Your task to perform on an android device: change alarm snooze length Image 0: 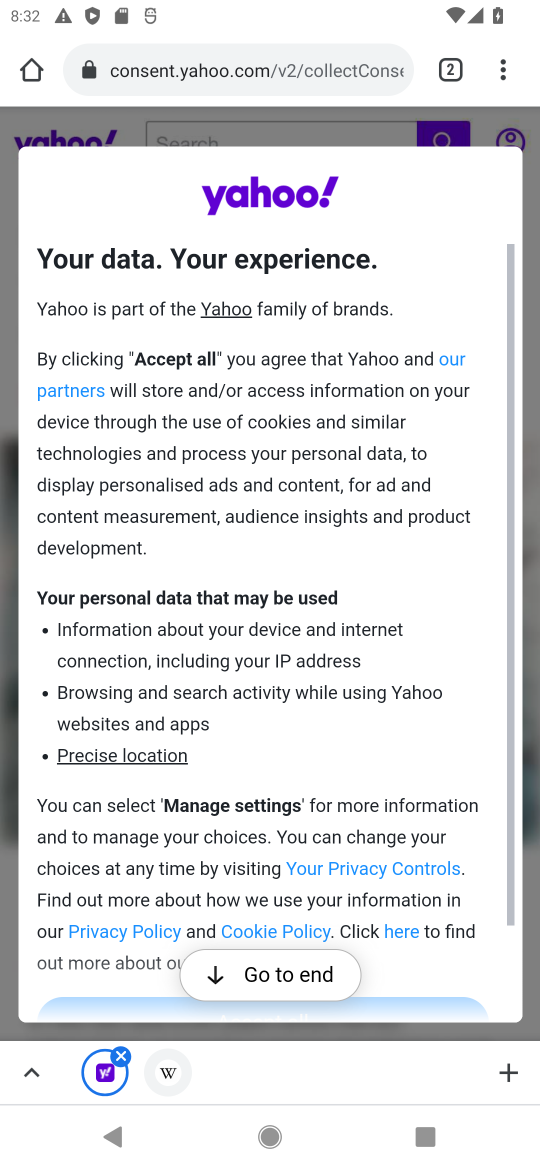
Step 0: press home button
Your task to perform on an android device: change alarm snooze length Image 1: 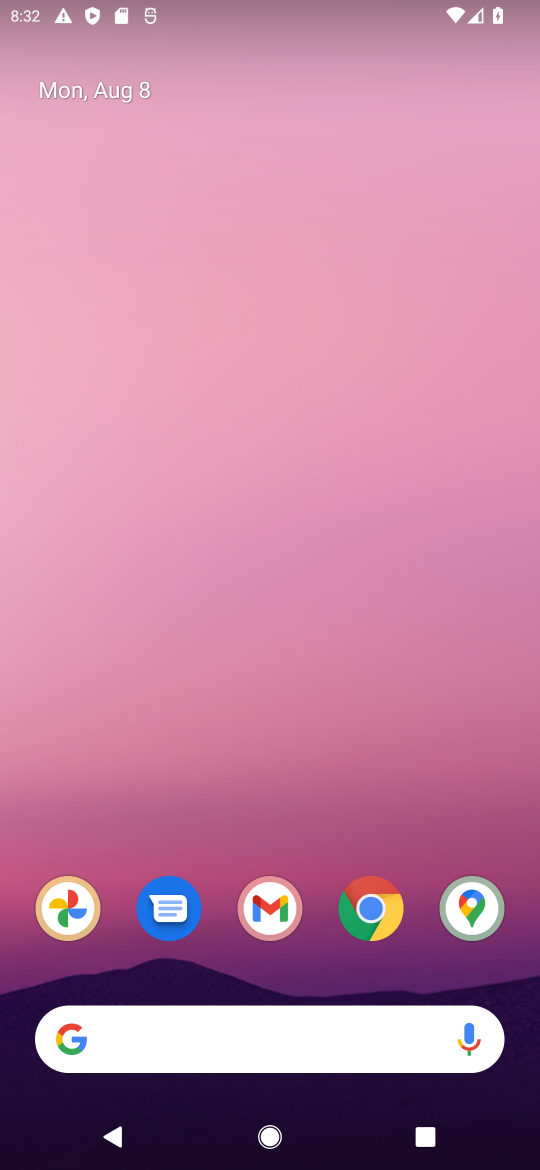
Step 1: drag from (321, 949) to (340, 309)
Your task to perform on an android device: change alarm snooze length Image 2: 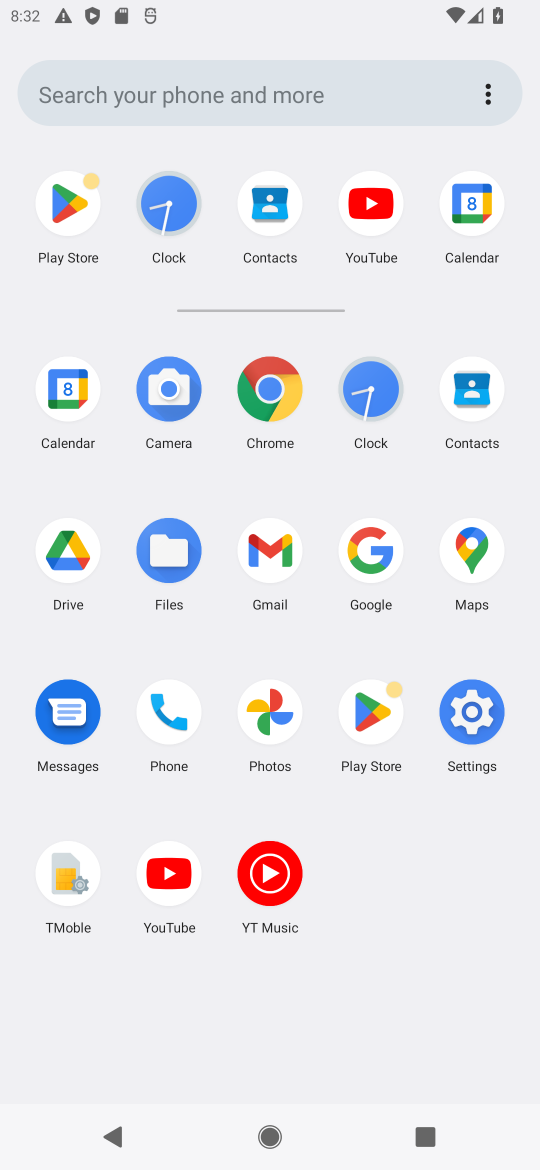
Step 2: click (376, 419)
Your task to perform on an android device: change alarm snooze length Image 3: 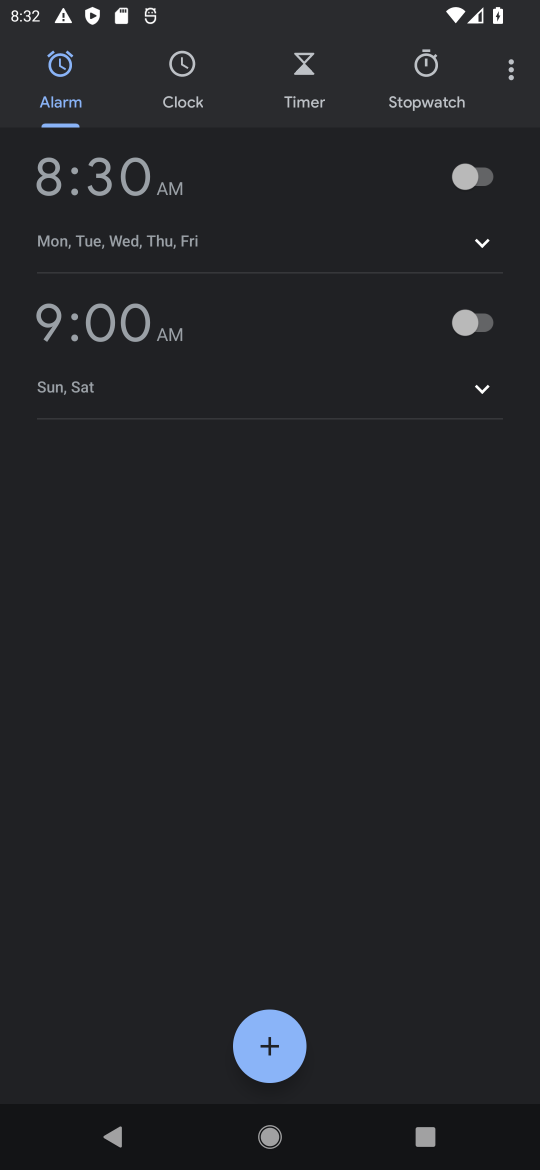
Step 3: click (515, 62)
Your task to perform on an android device: change alarm snooze length Image 4: 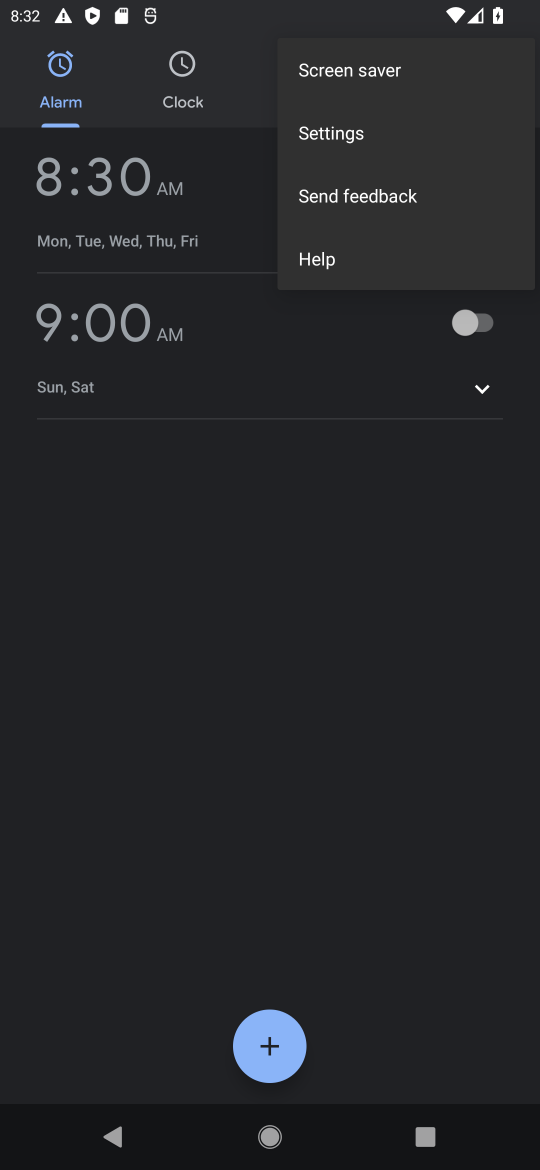
Step 4: click (331, 143)
Your task to perform on an android device: change alarm snooze length Image 5: 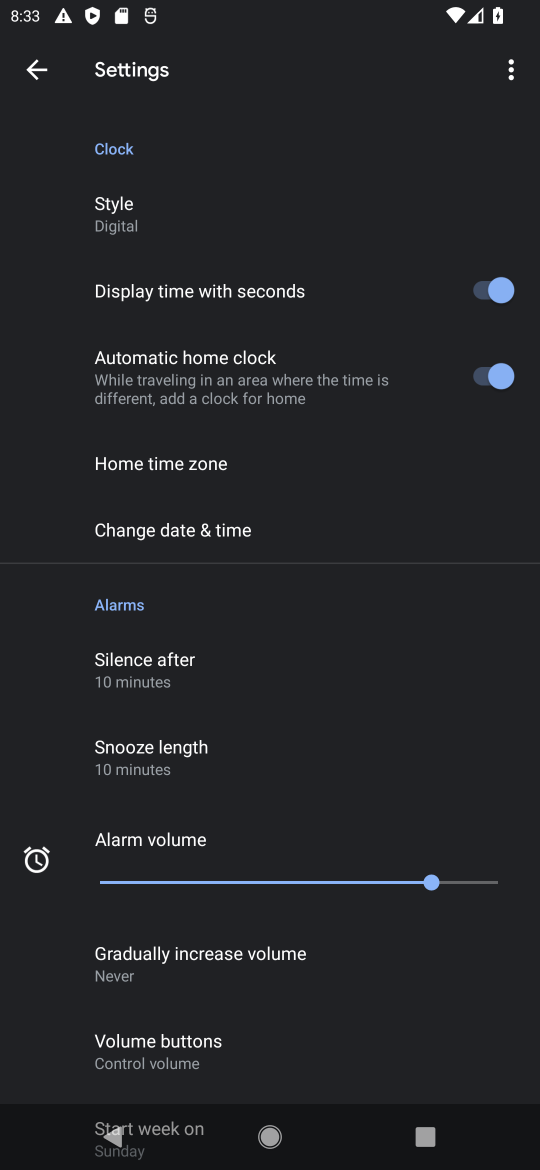
Step 5: click (294, 769)
Your task to perform on an android device: change alarm snooze length Image 6: 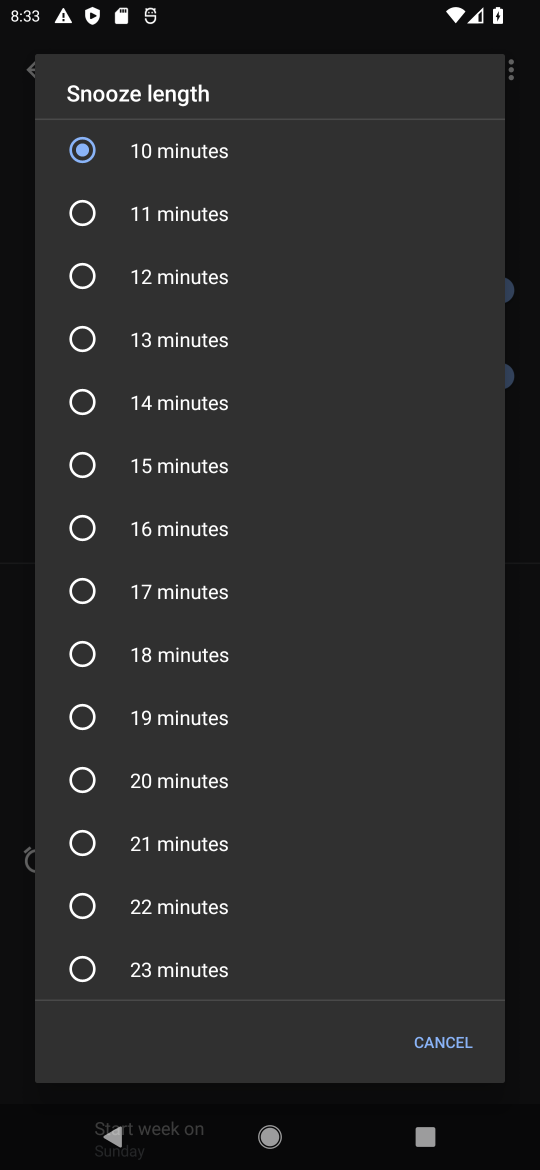
Step 6: click (204, 976)
Your task to perform on an android device: change alarm snooze length Image 7: 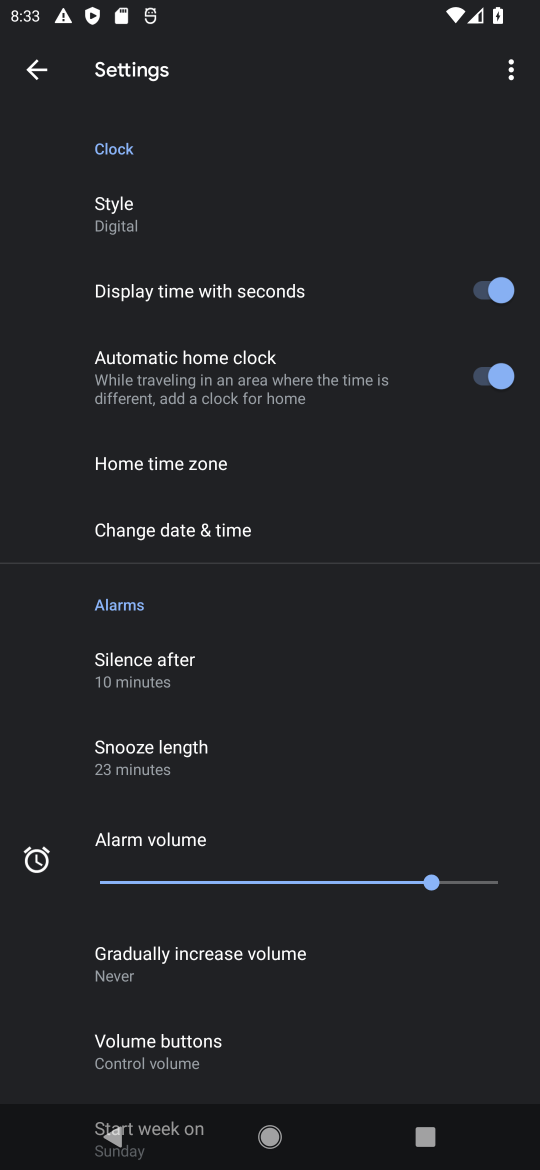
Step 7: task complete